Your task to perform on an android device: Add "bose soundlink" to the cart on costco Image 0: 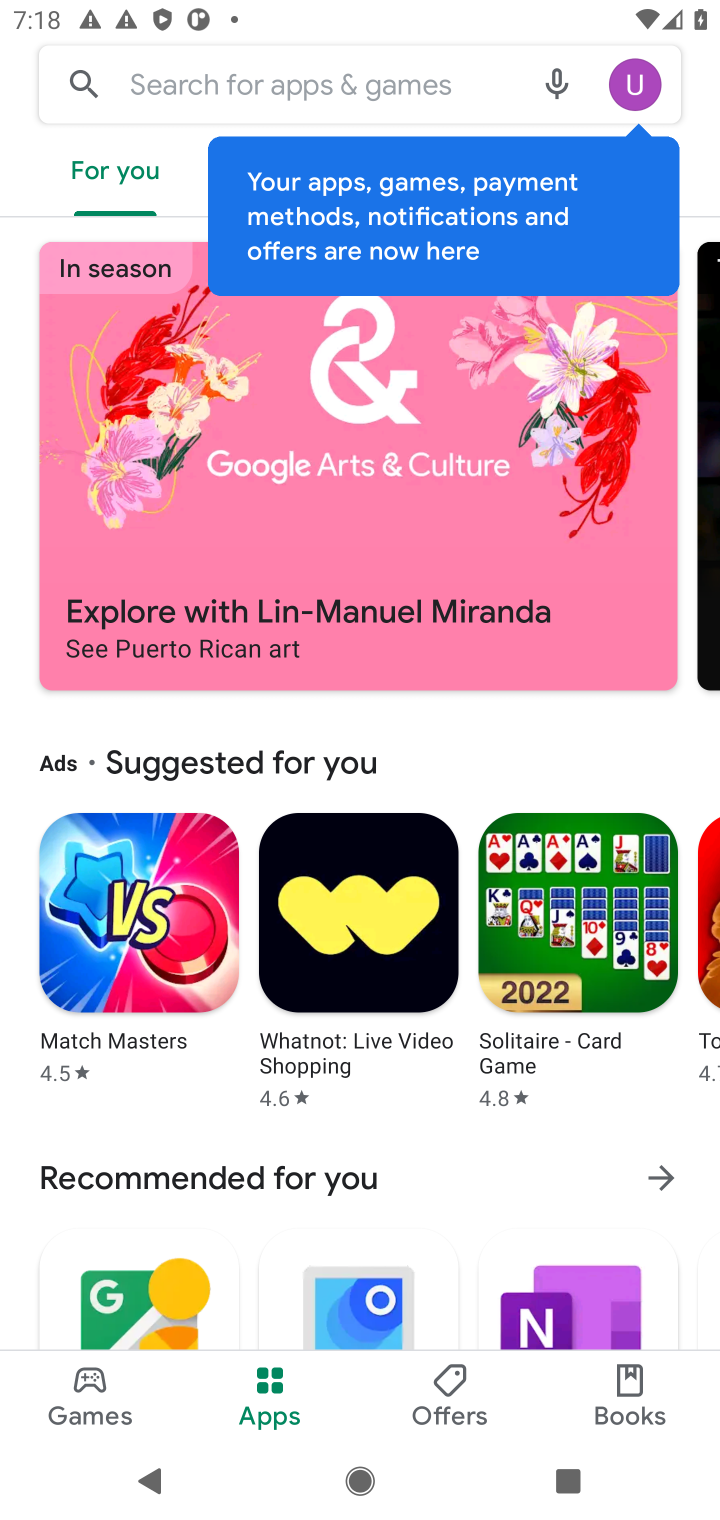
Step 0: press home button
Your task to perform on an android device: Add "bose soundlink" to the cart on costco Image 1: 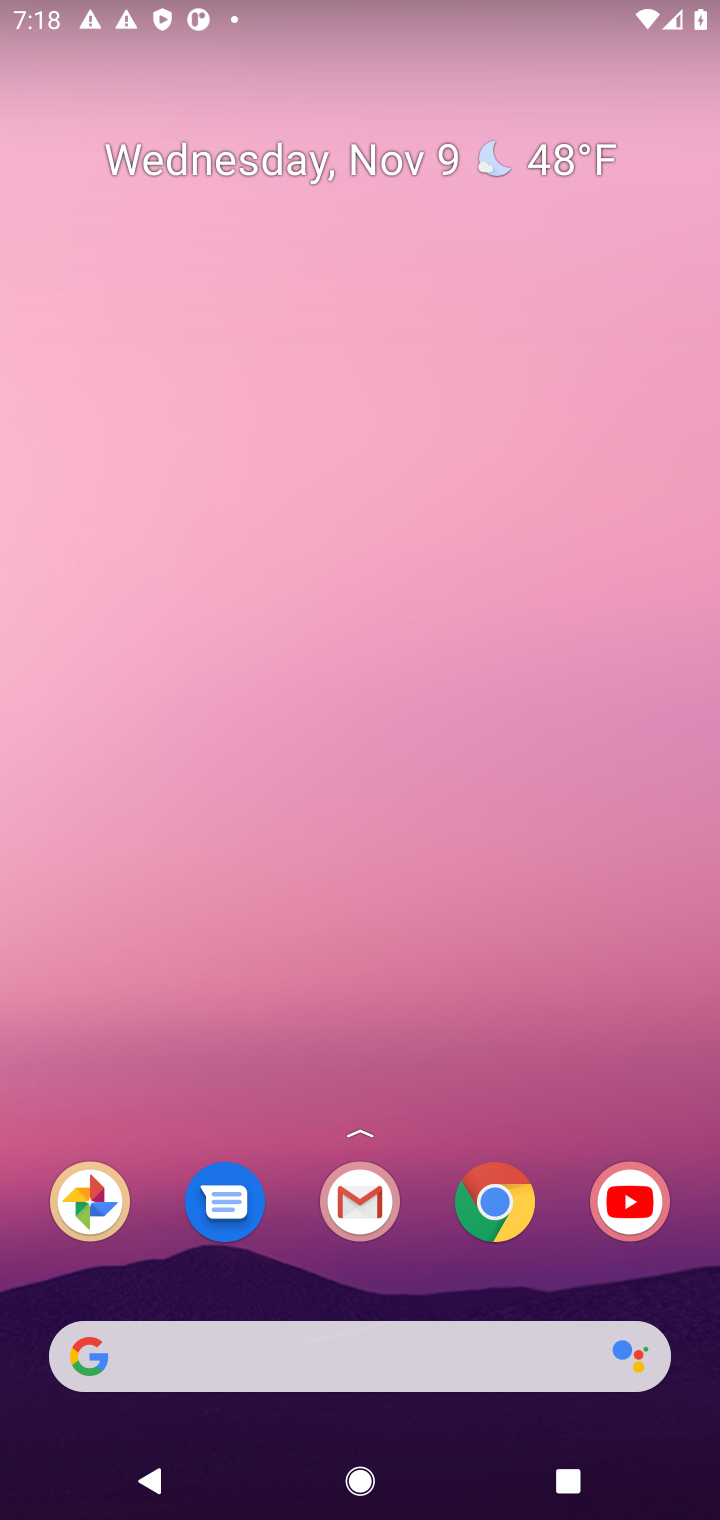
Step 1: click (502, 1194)
Your task to perform on an android device: Add "bose soundlink" to the cart on costco Image 2: 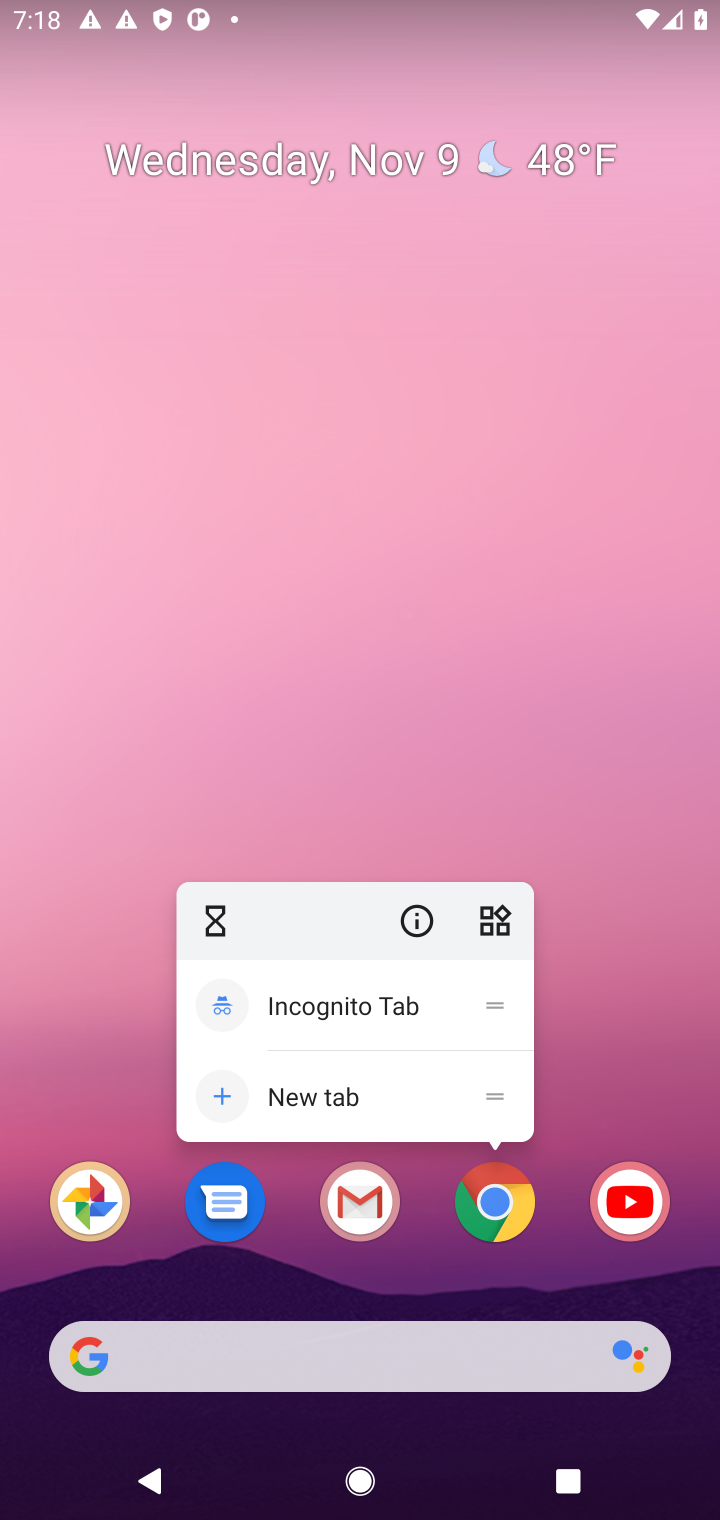
Step 2: click (478, 1203)
Your task to perform on an android device: Add "bose soundlink" to the cart on costco Image 3: 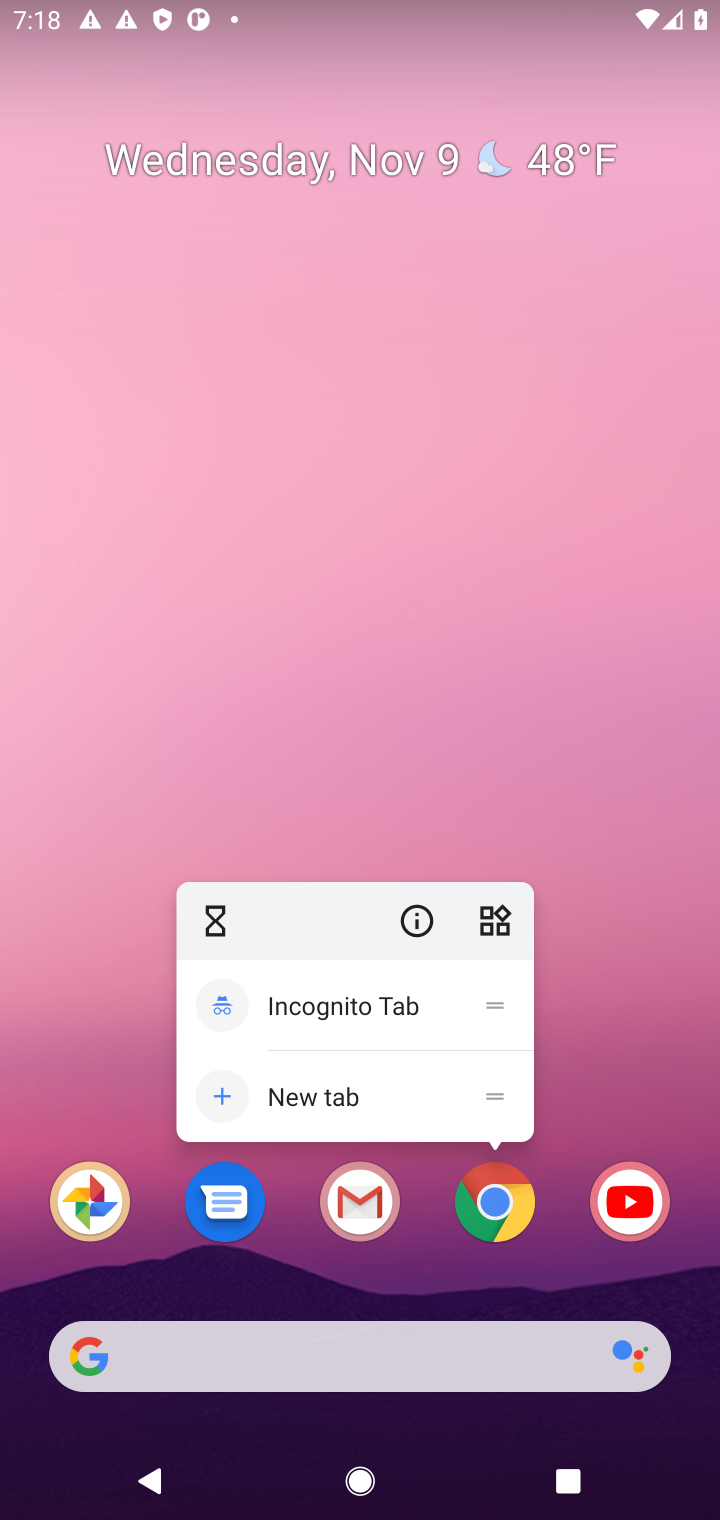
Step 3: click (478, 1205)
Your task to perform on an android device: Add "bose soundlink" to the cart on costco Image 4: 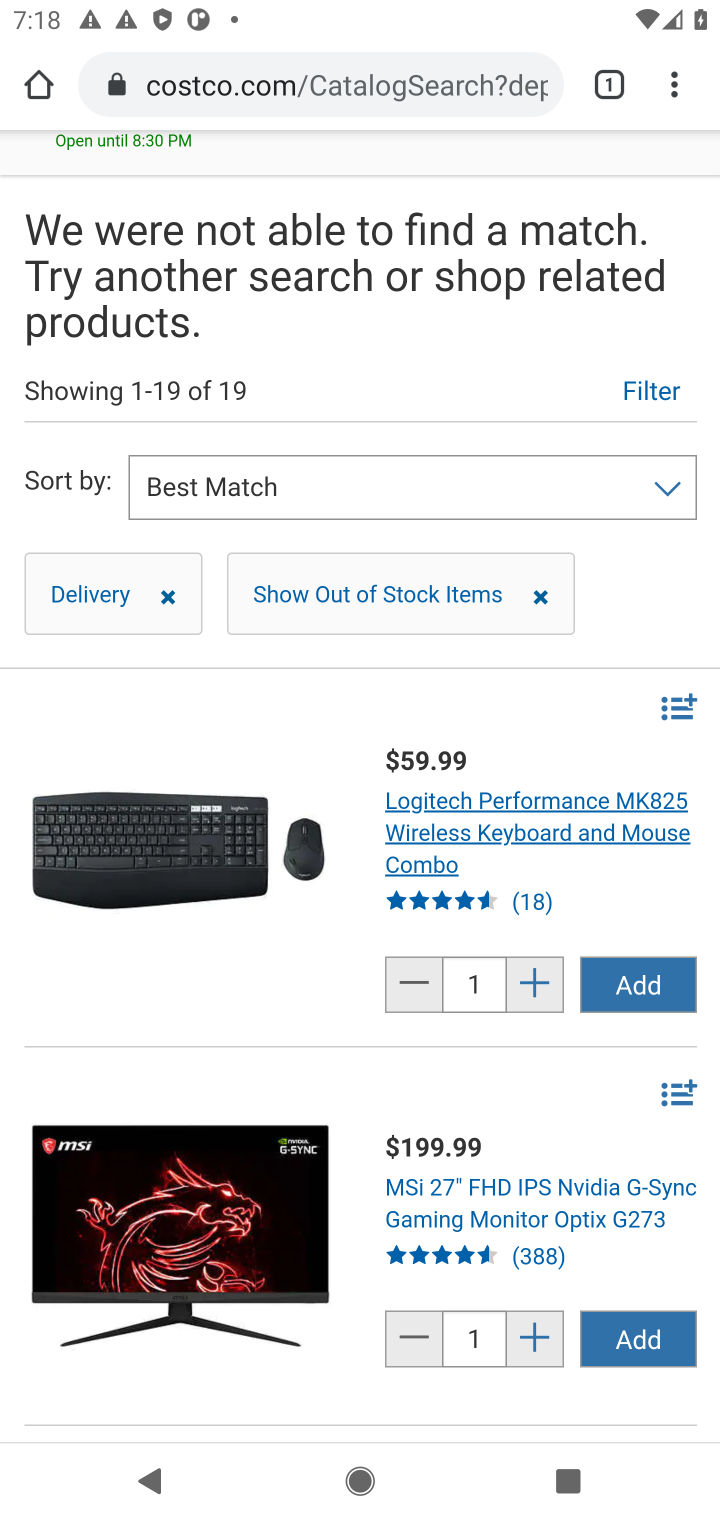
Step 4: drag from (435, 309) to (571, 1277)
Your task to perform on an android device: Add "bose soundlink" to the cart on costco Image 5: 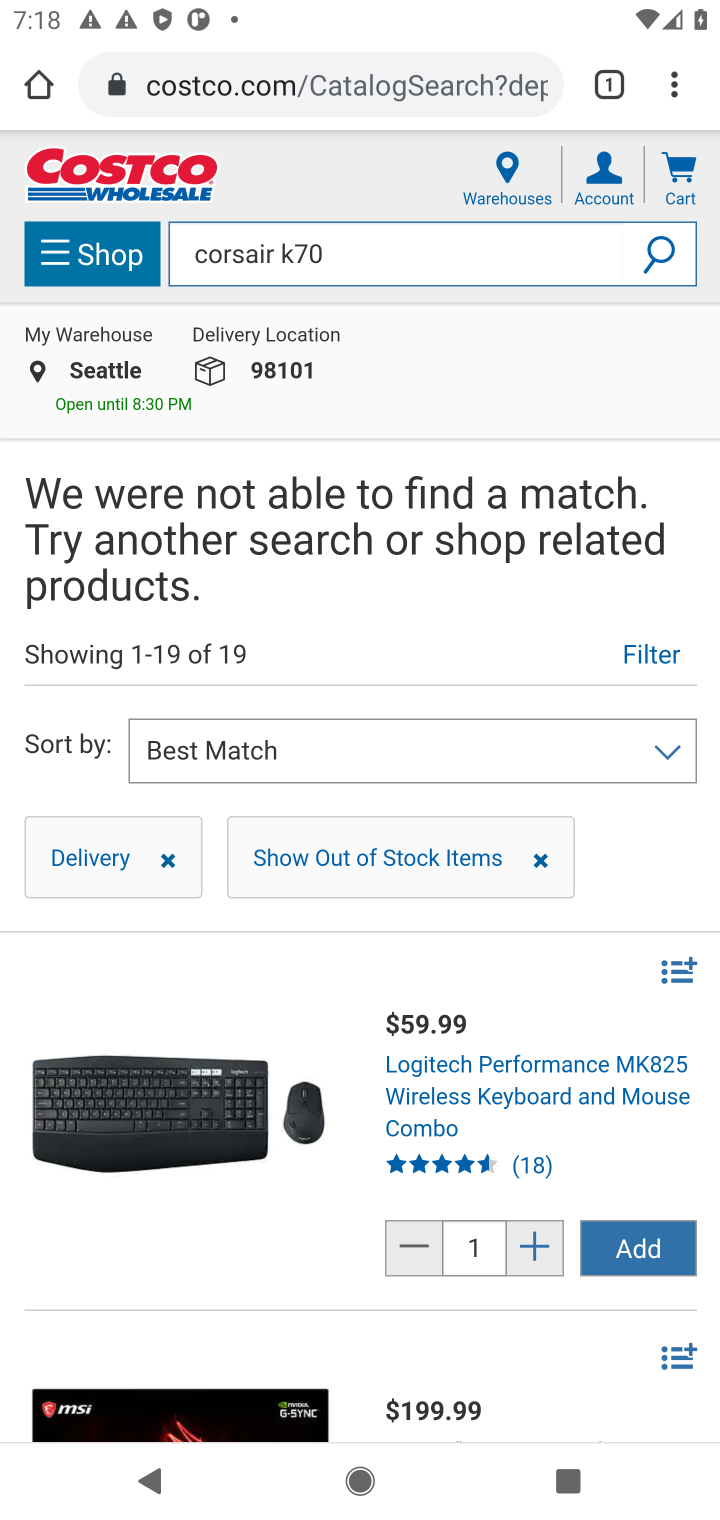
Step 5: click (422, 250)
Your task to perform on an android device: Add "bose soundlink" to the cart on costco Image 6: 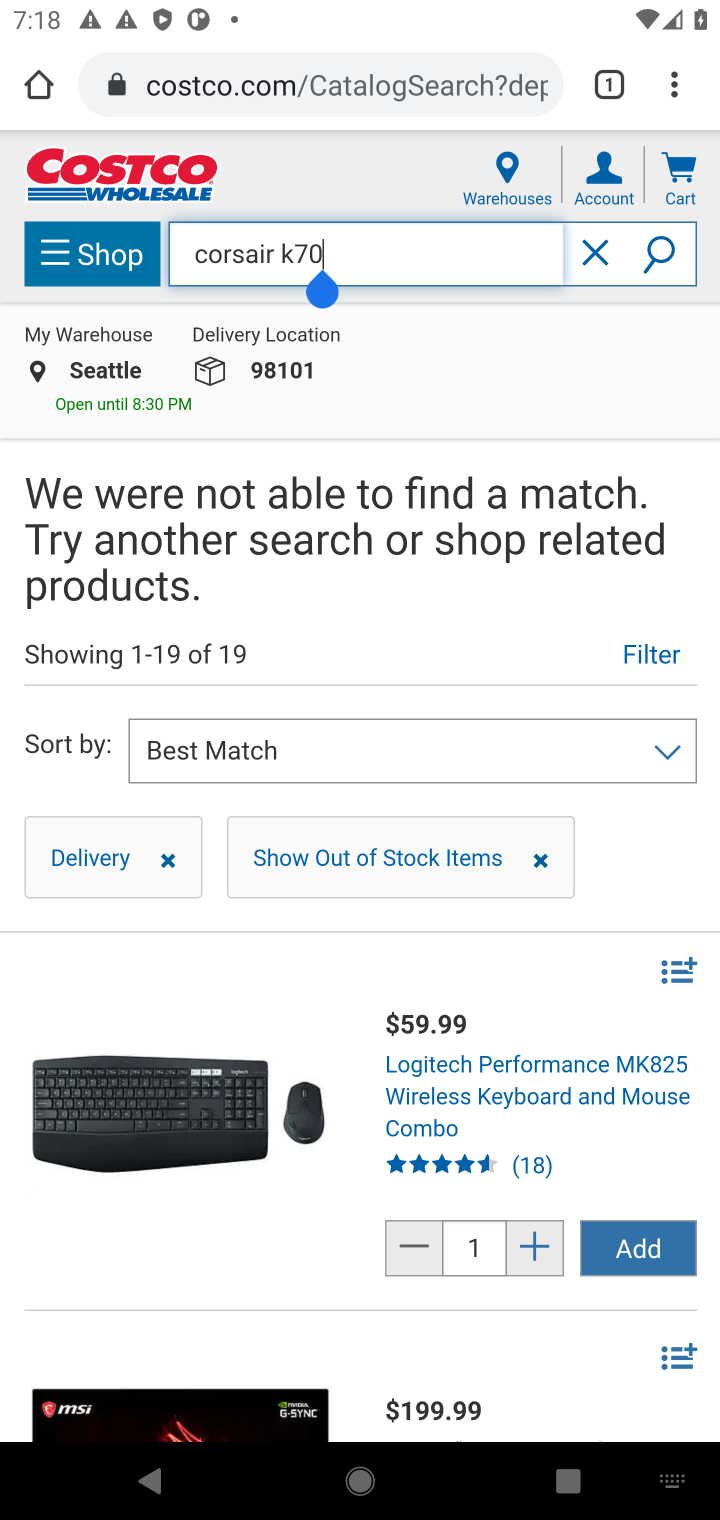
Step 6: click (604, 240)
Your task to perform on an android device: Add "bose soundlink" to the cart on costco Image 7: 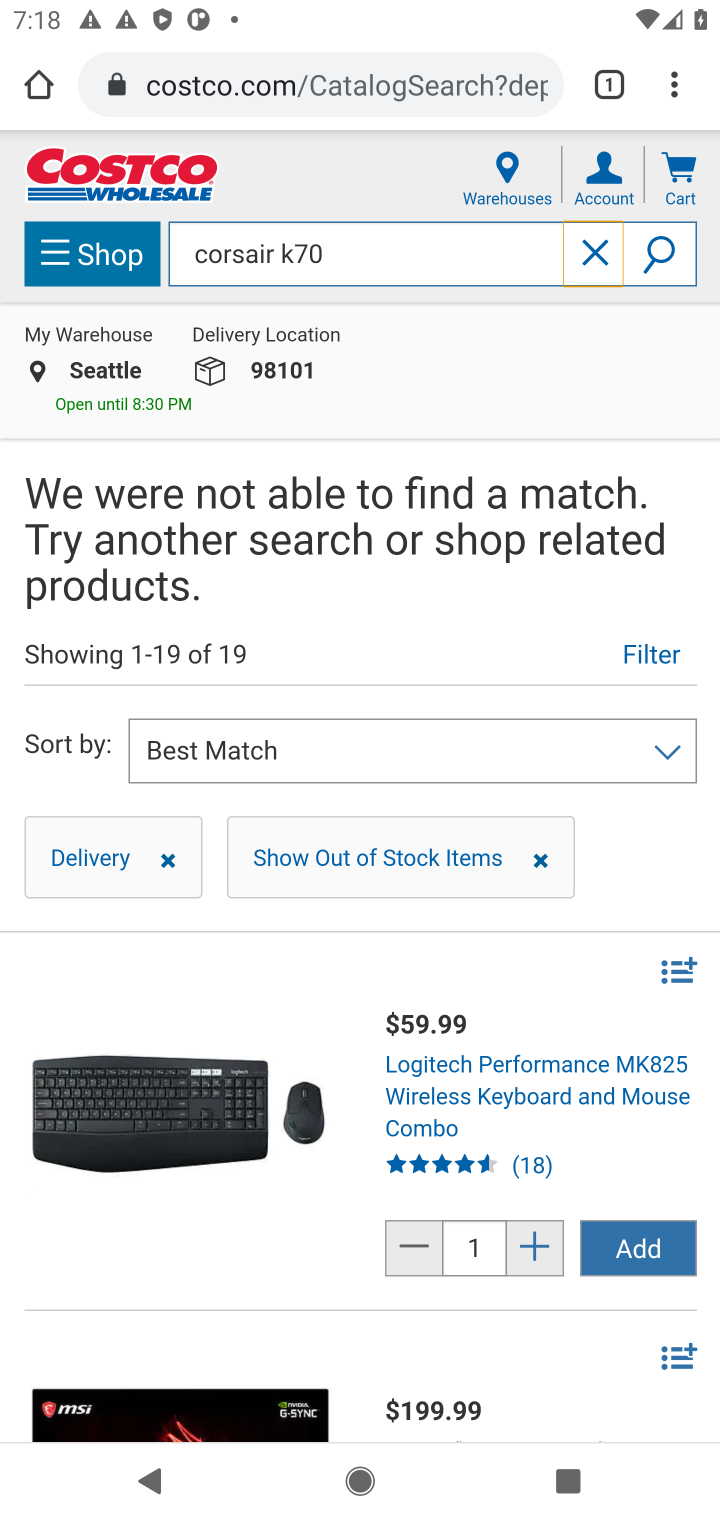
Step 7: click (587, 241)
Your task to perform on an android device: Add "bose soundlink" to the cart on costco Image 8: 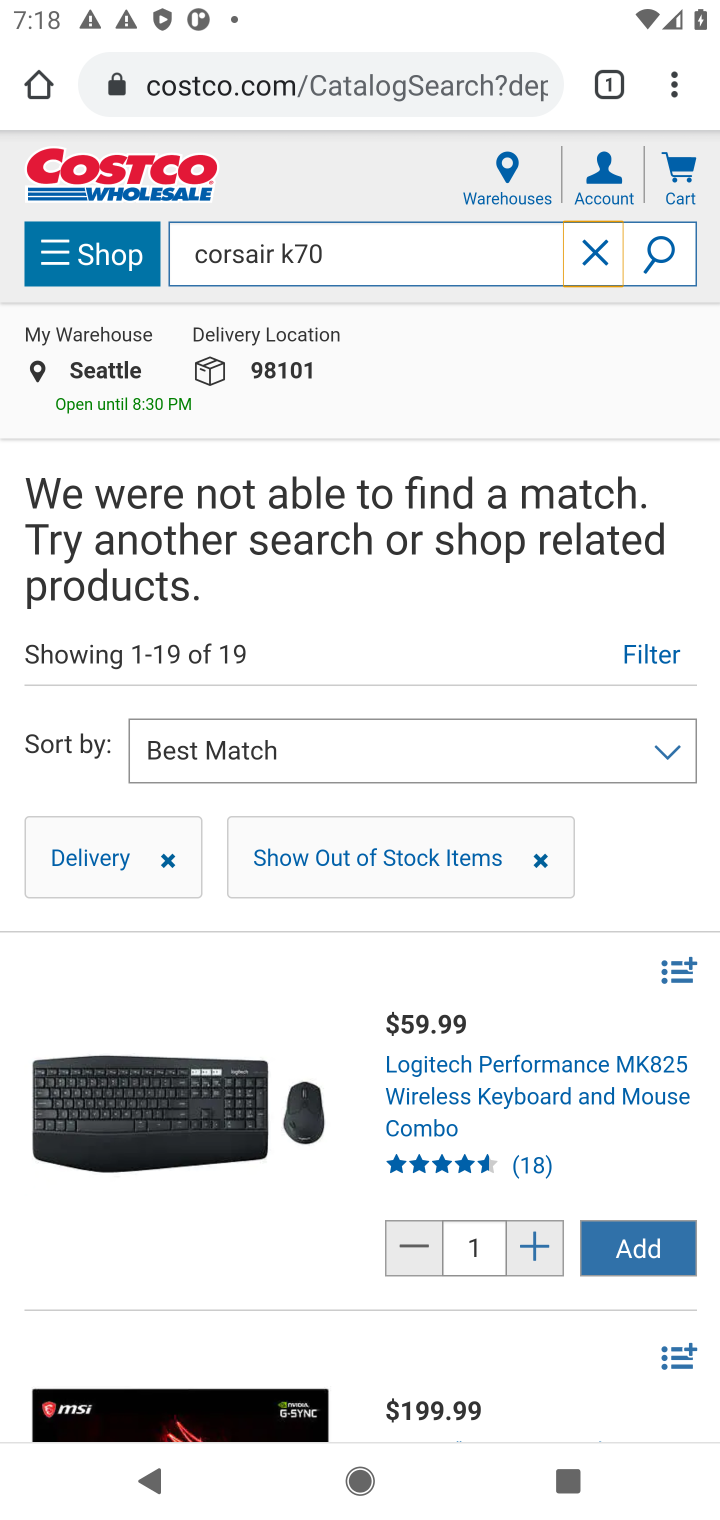
Step 8: click (595, 251)
Your task to perform on an android device: Add "bose soundlink" to the cart on costco Image 9: 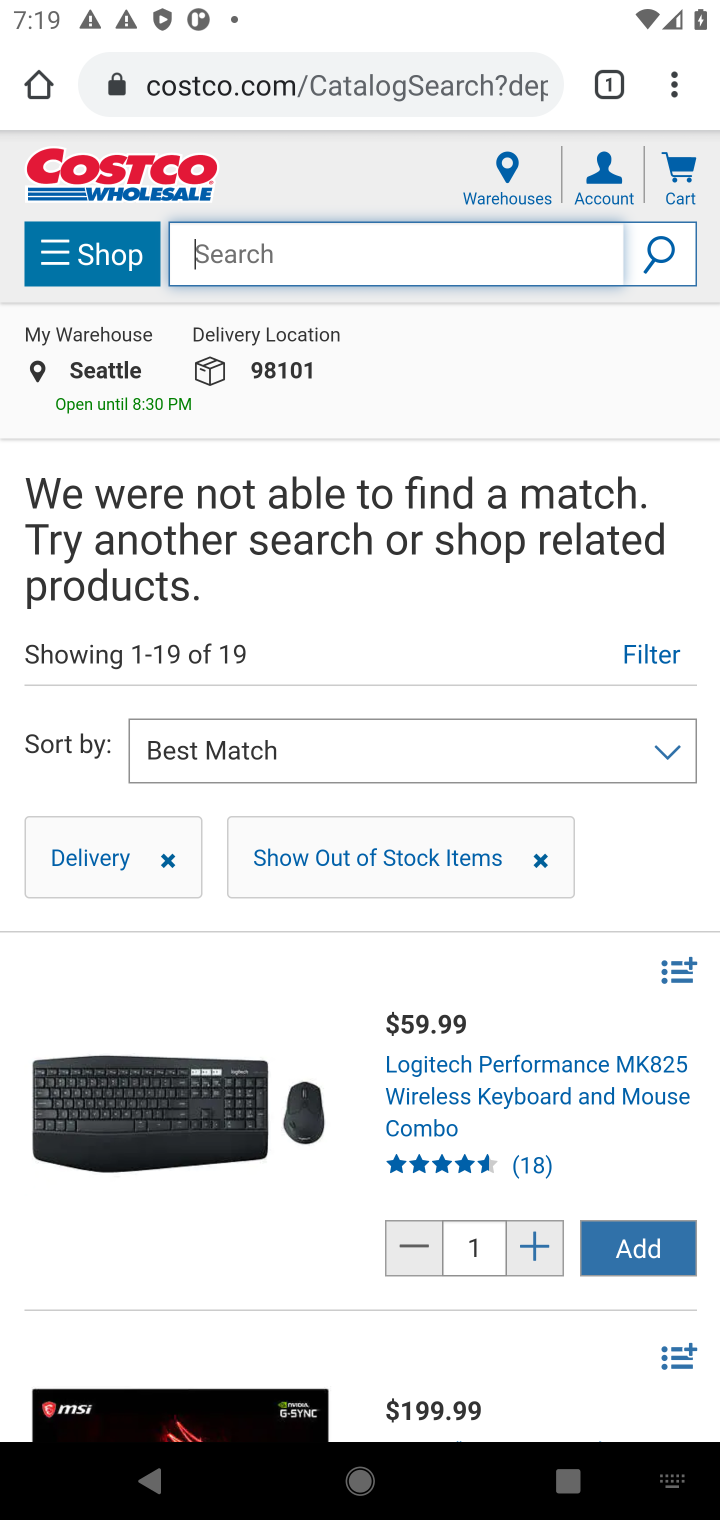
Step 9: click (294, 244)
Your task to perform on an android device: Add "bose soundlink" to the cart on costco Image 10: 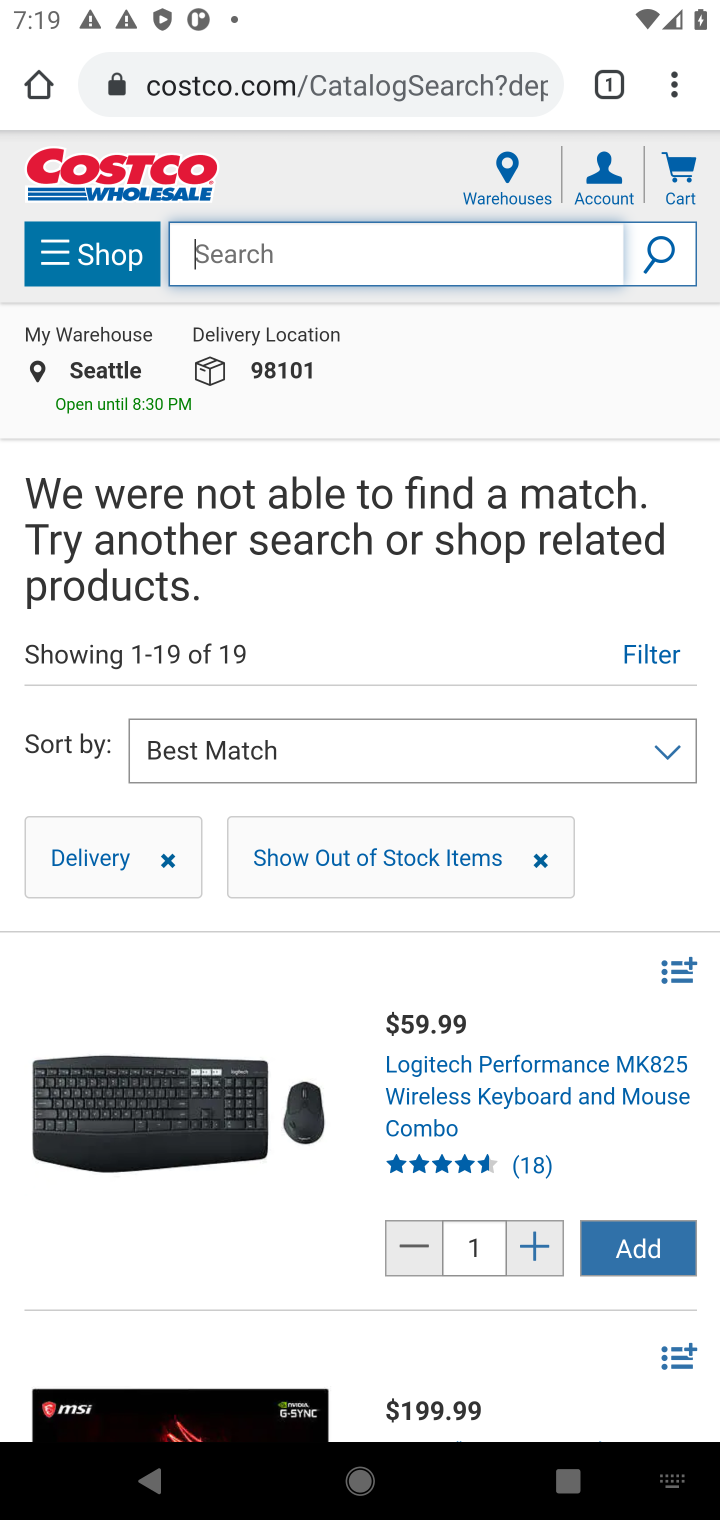
Step 10: type "bose soundlink"
Your task to perform on an android device: Add "bose soundlink" to the cart on costco Image 11: 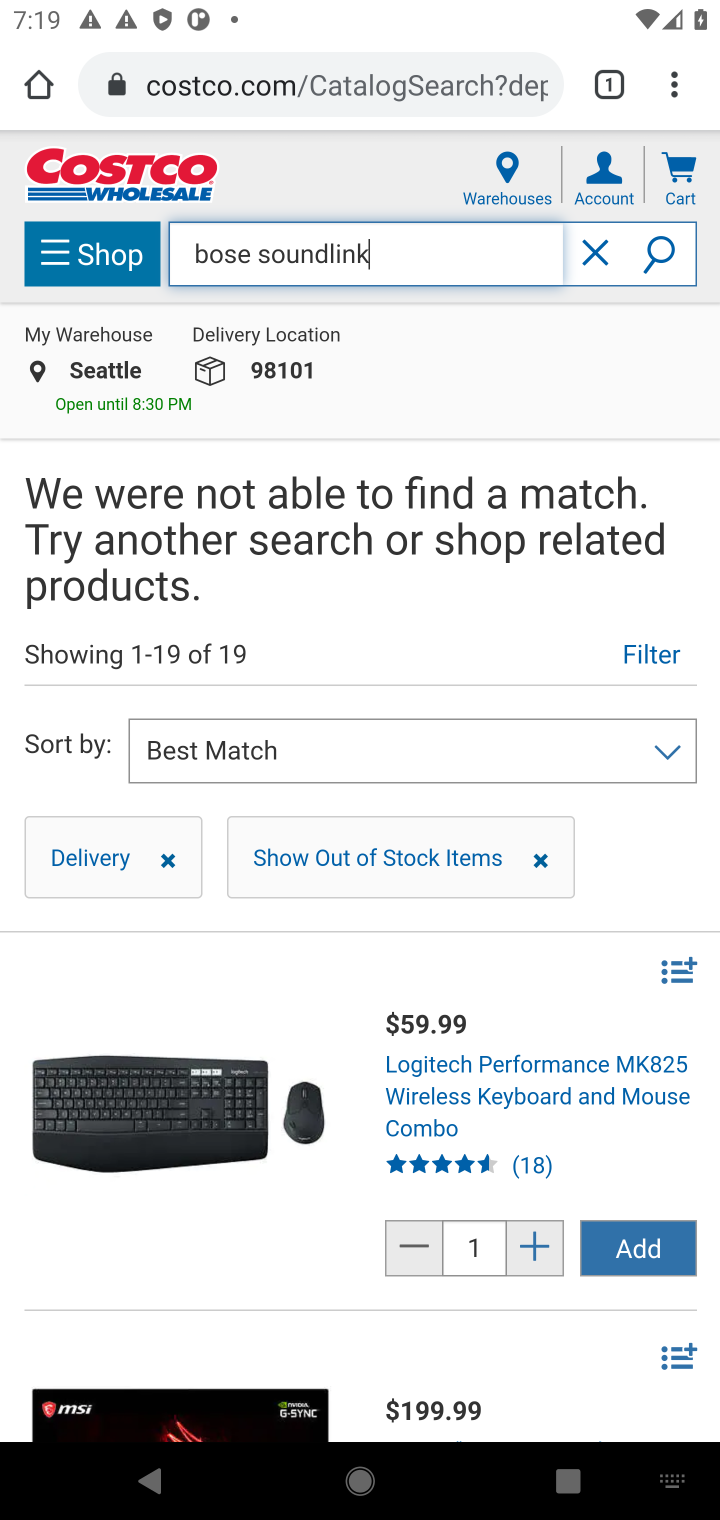
Step 11: press enter
Your task to perform on an android device: Add "bose soundlink" to the cart on costco Image 12: 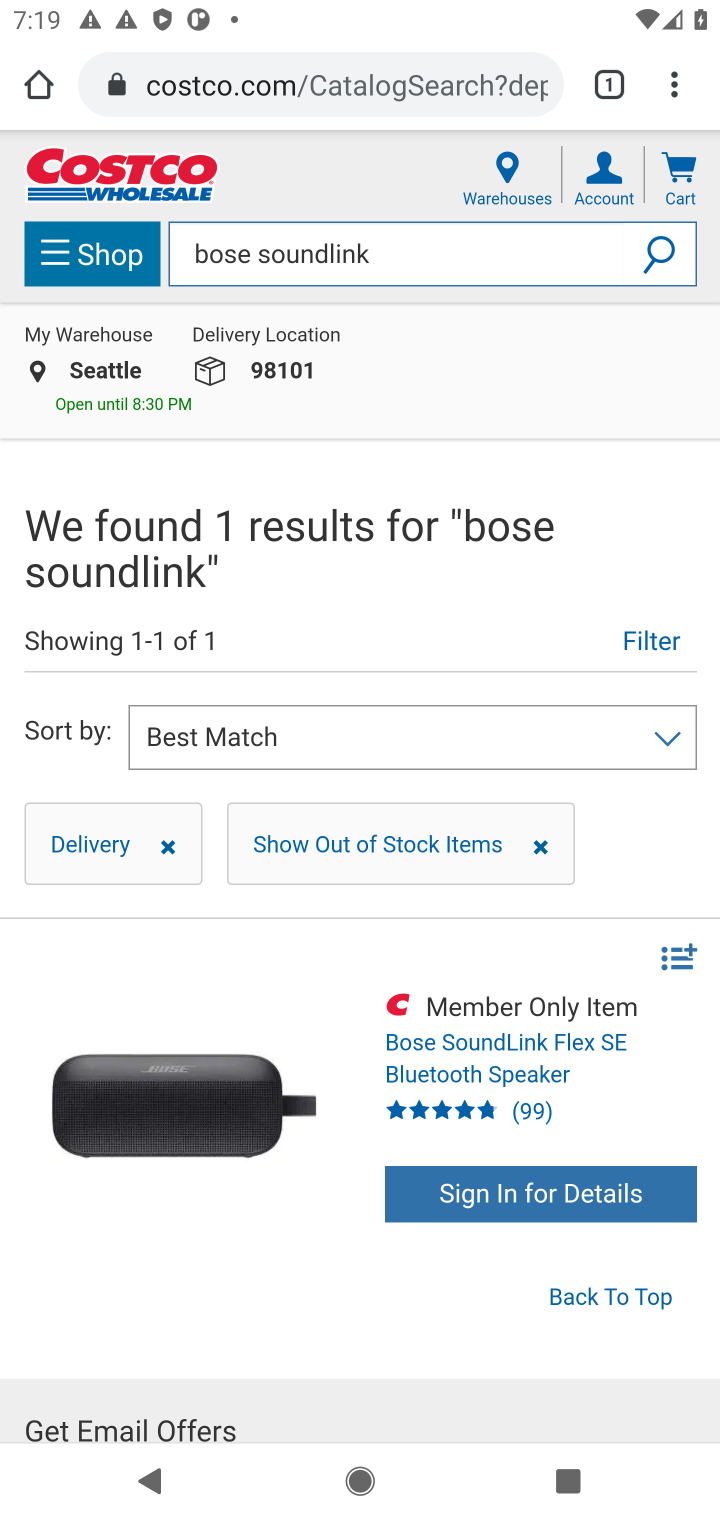
Step 12: drag from (284, 1187) to (373, 849)
Your task to perform on an android device: Add "bose soundlink" to the cart on costco Image 13: 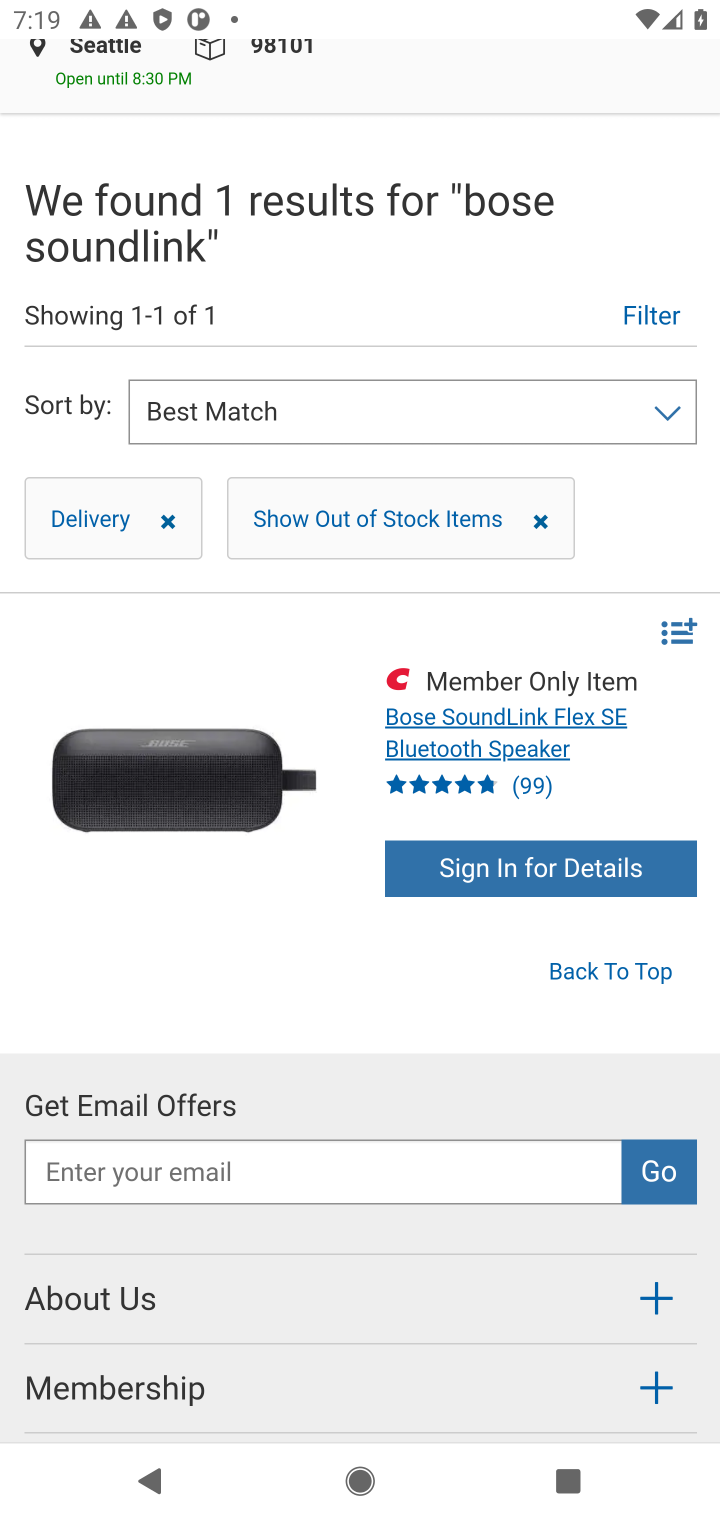
Step 13: click (492, 716)
Your task to perform on an android device: Add "bose soundlink" to the cart on costco Image 14: 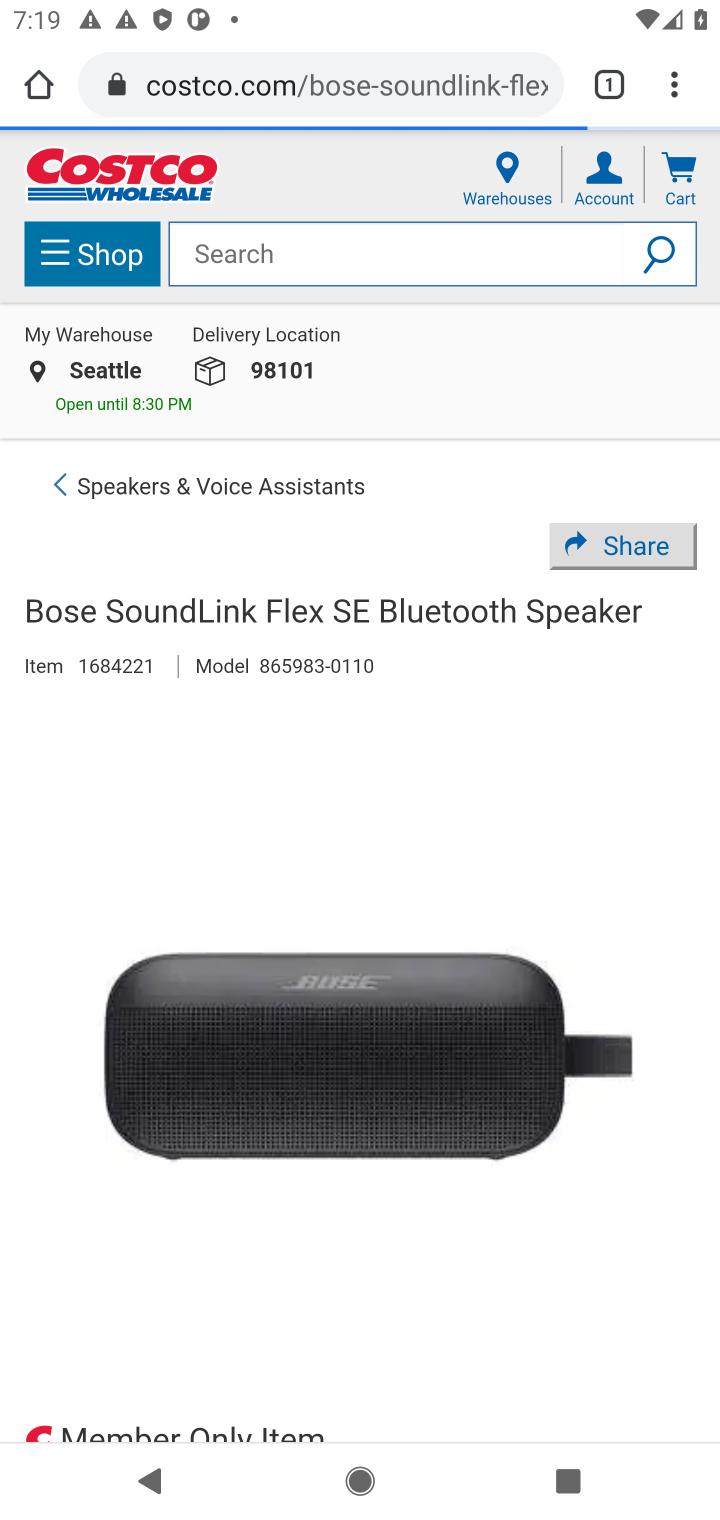
Step 14: task complete